Your task to perform on an android device: Open notification settings Image 0: 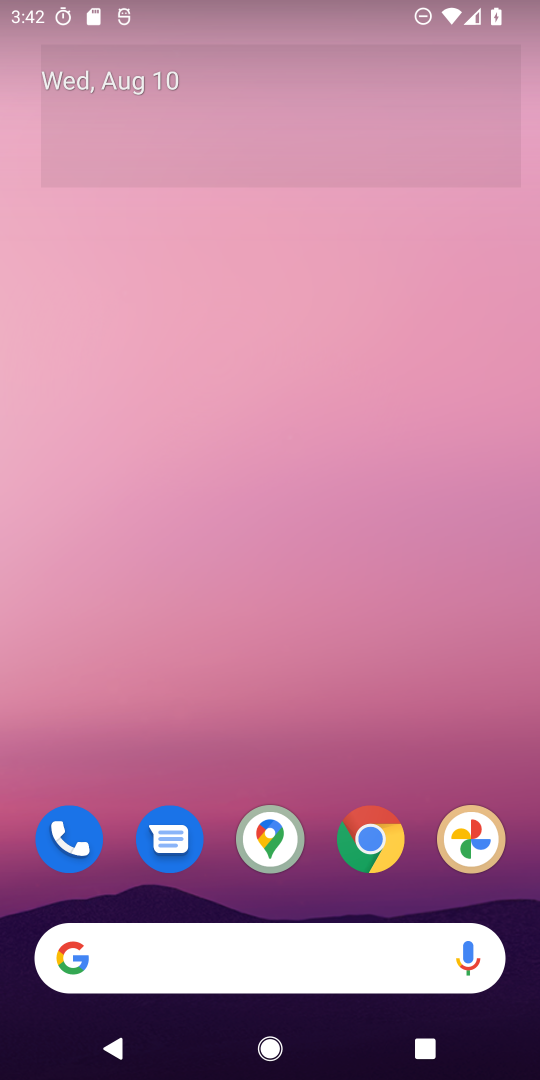
Step 0: drag from (41, 1017) to (261, 338)
Your task to perform on an android device: Open notification settings Image 1: 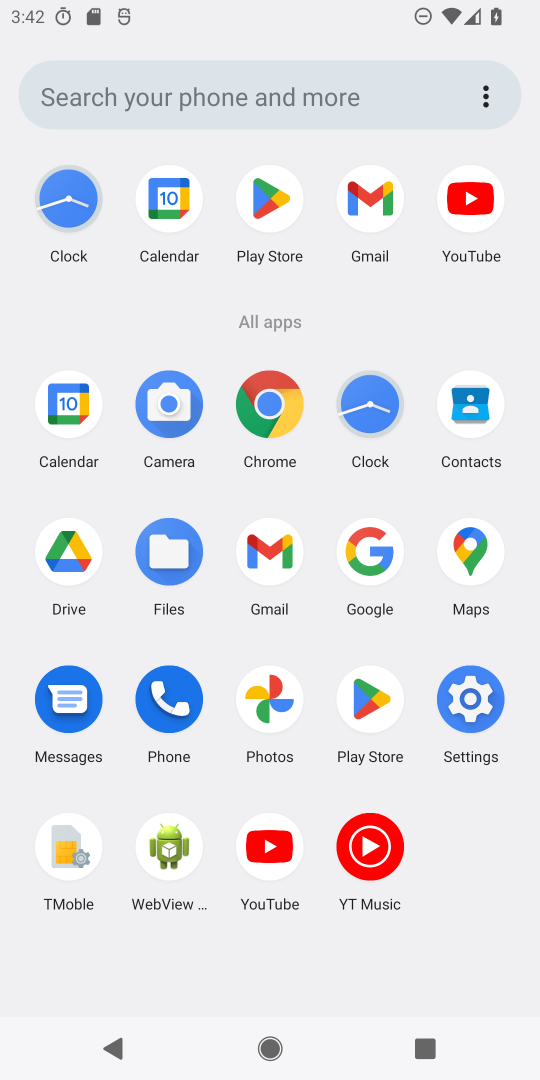
Step 1: click (465, 702)
Your task to perform on an android device: Open notification settings Image 2: 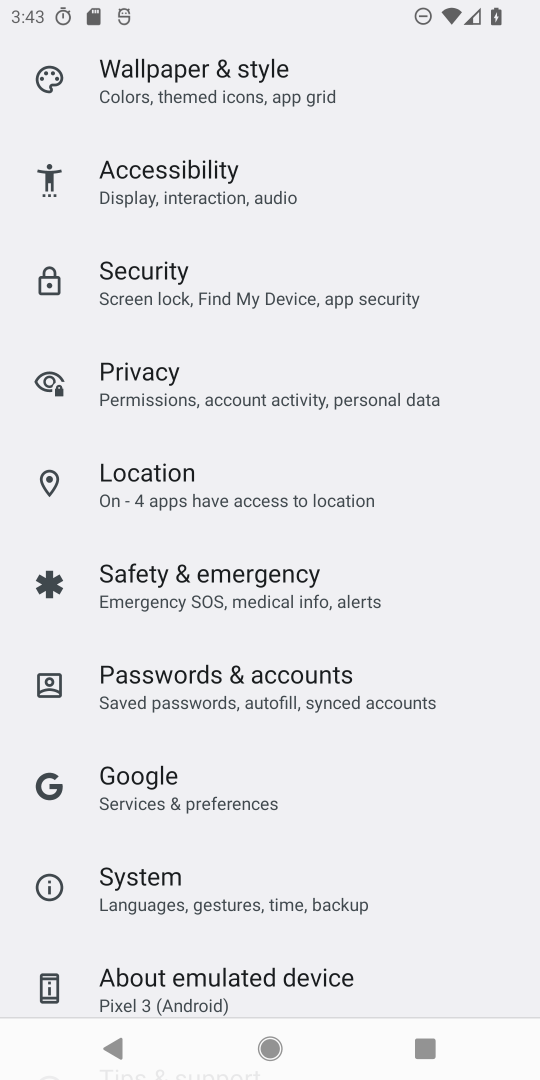
Step 2: drag from (378, 135) to (342, 535)
Your task to perform on an android device: Open notification settings Image 3: 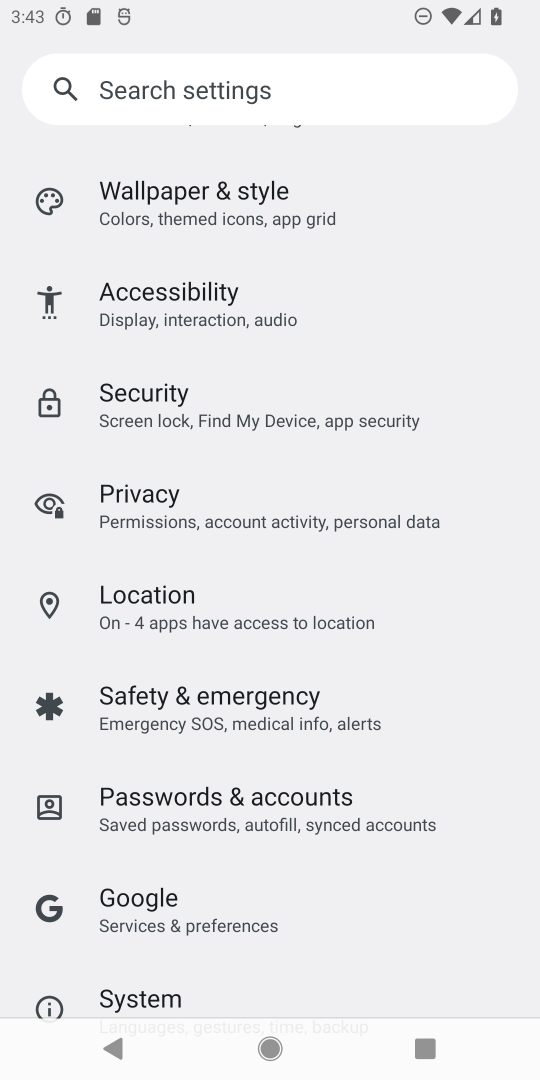
Step 3: drag from (431, 958) to (537, 375)
Your task to perform on an android device: Open notification settings Image 4: 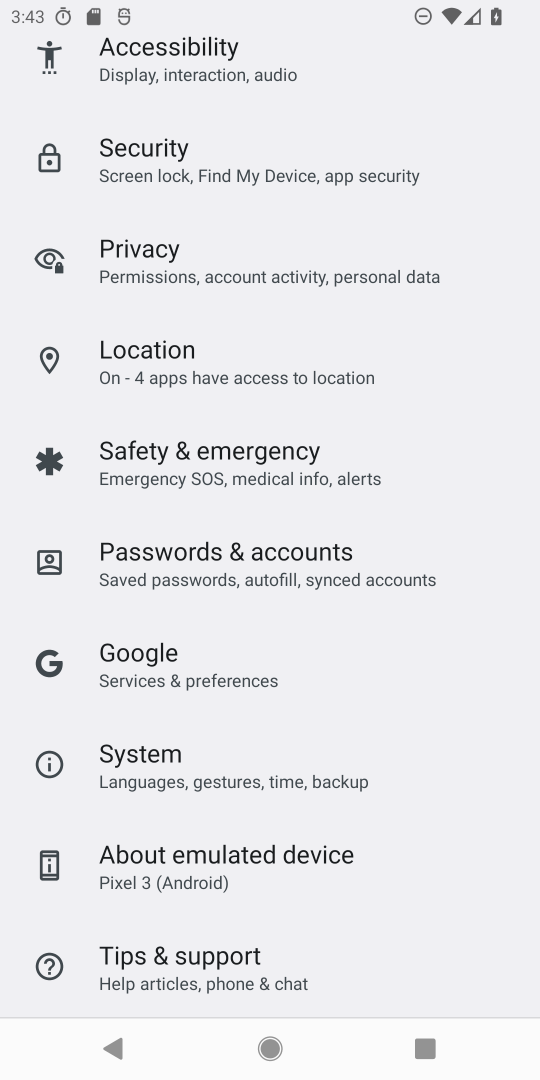
Step 4: drag from (496, 77) to (419, 609)
Your task to perform on an android device: Open notification settings Image 5: 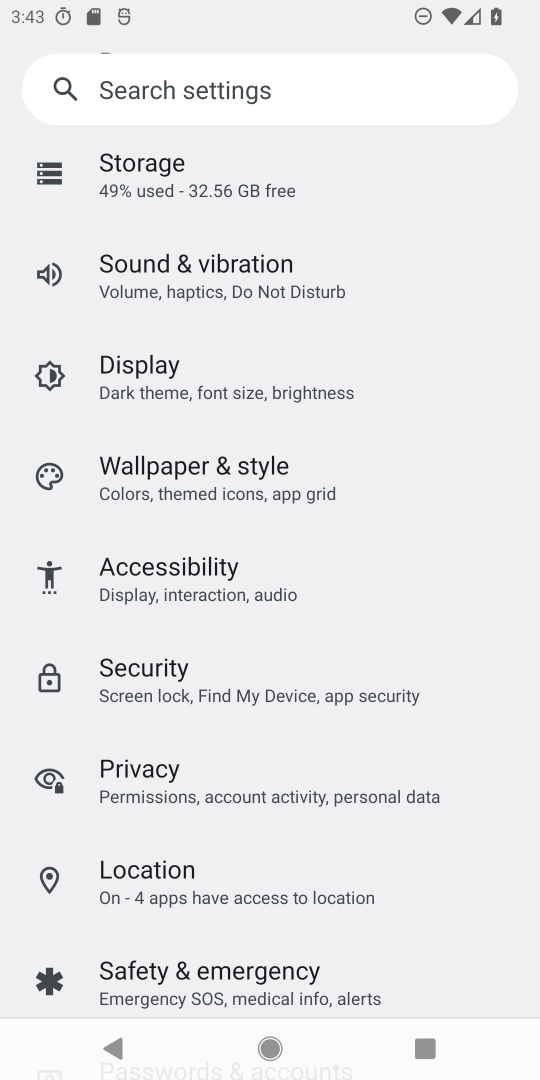
Step 5: drag from (470, 153) to (440, 678)
Your task to perform on an android device: Open notification settings Image 6: 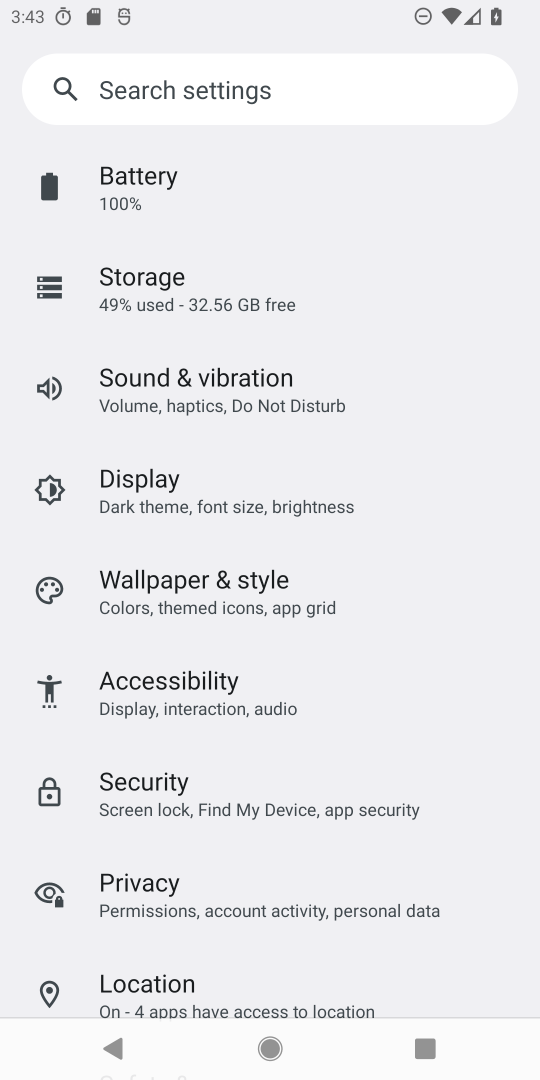
Step 6: drag from (471, 981) to (535, 445)
Your task to perform on an android device: Open notification settings Image 7: 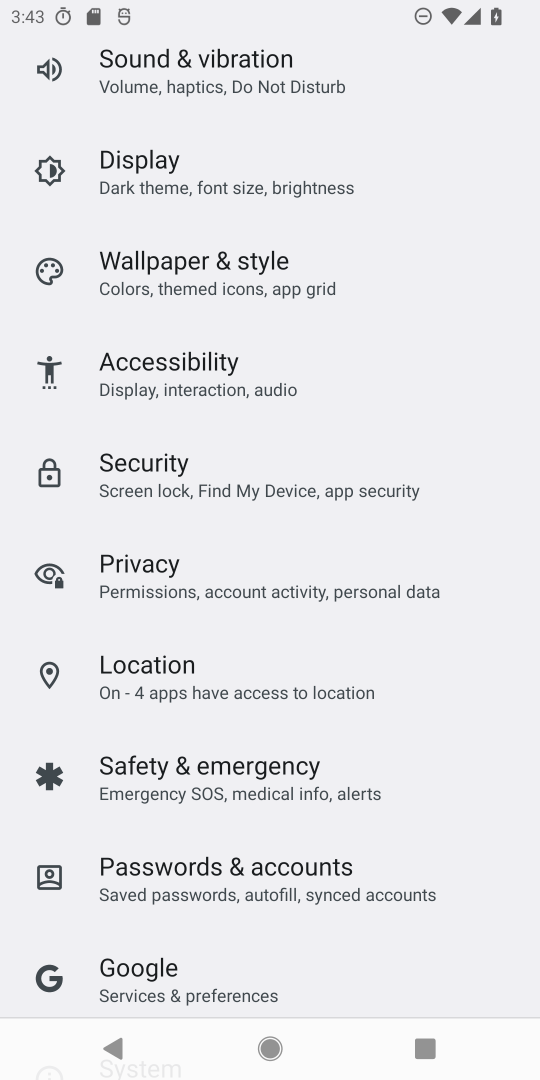
Step 7: drag from (491, 947) to (533, 911)
Your task to perform on an android device: Open notification settings Image 8: 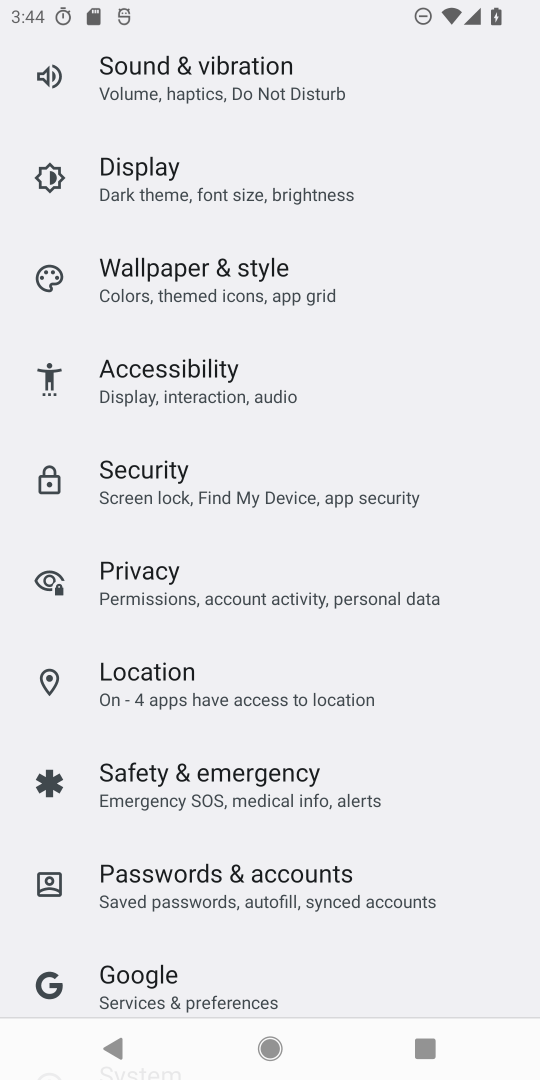
Step 8: drag from (481, 987) to (531, 289)
Your task to perform on an android device: Open notification settings Image 9: 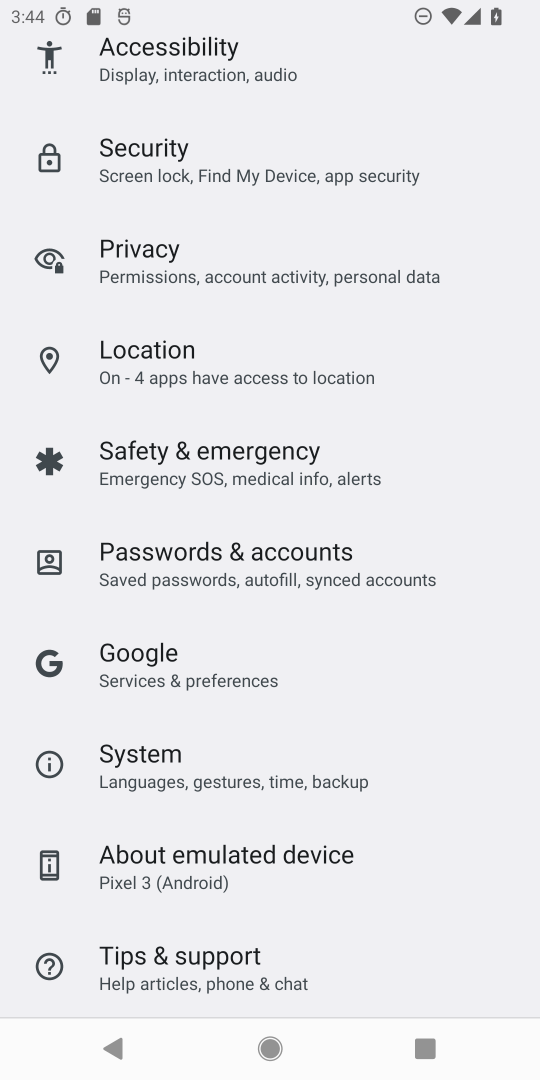
Step 9: drag from (453, 90) to (445, 383)
Your task to perform on an android device: Open notification settings Image 10: 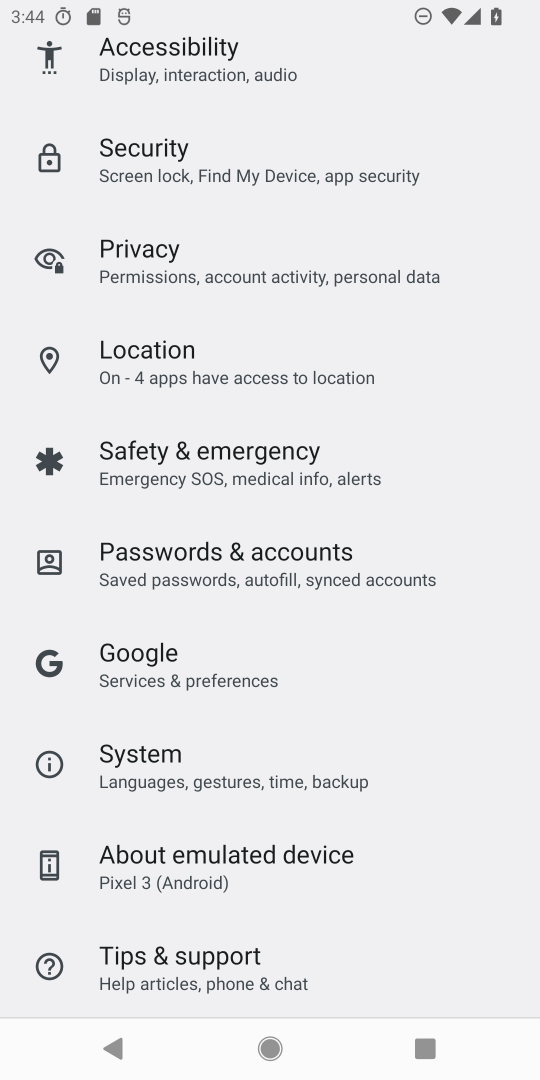
Step 10: drag from (484, 69) to (316, 933)
Your task to perform on an android device: Open notification settings Image 11: 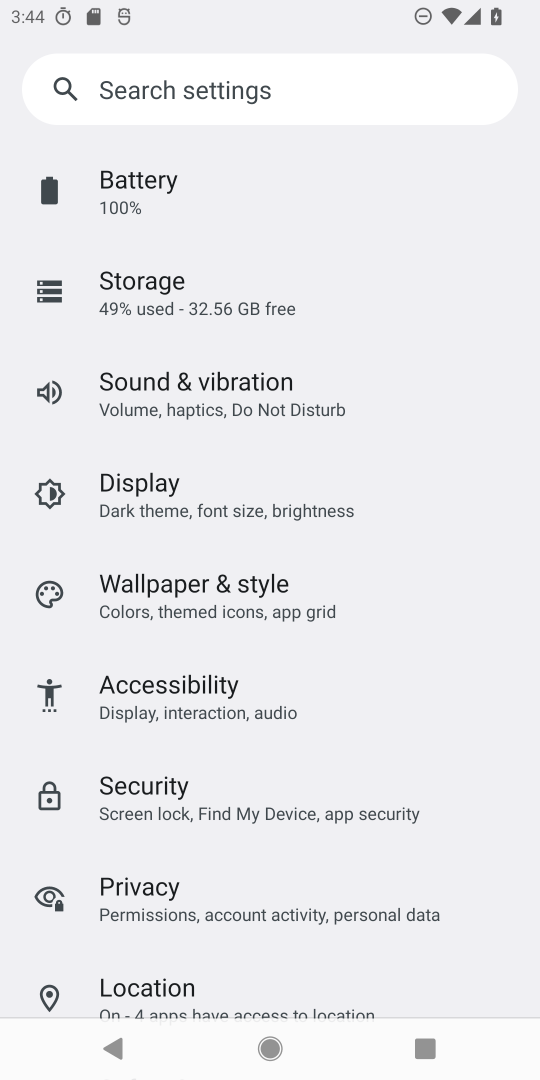
Step 11: drag from (439, 335) to (385, 944)
Your task to perform on an android device: Open notification settings Image 12: 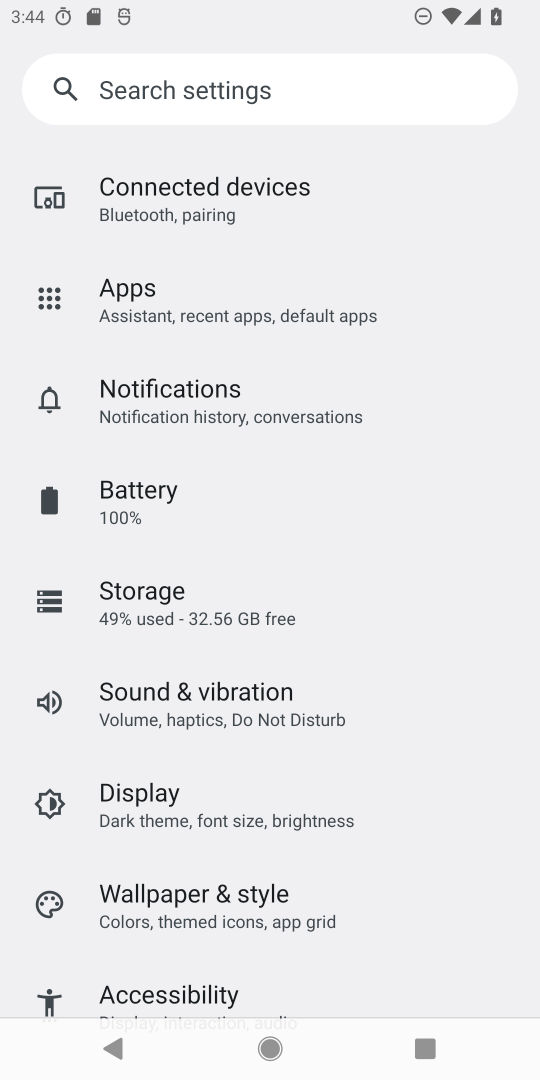
Step 12: click (193, 396)
Your task to perform on an android device: Open notification settings Image 13: 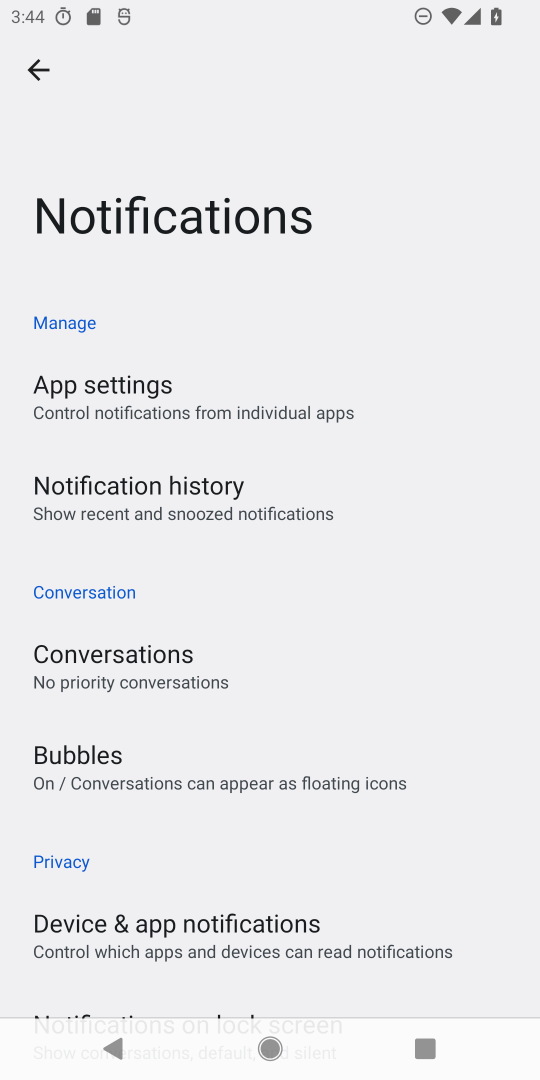
Step 13: task complete